Your task to perform on an android device: Open calendar and show me the third week of next month Image 0: 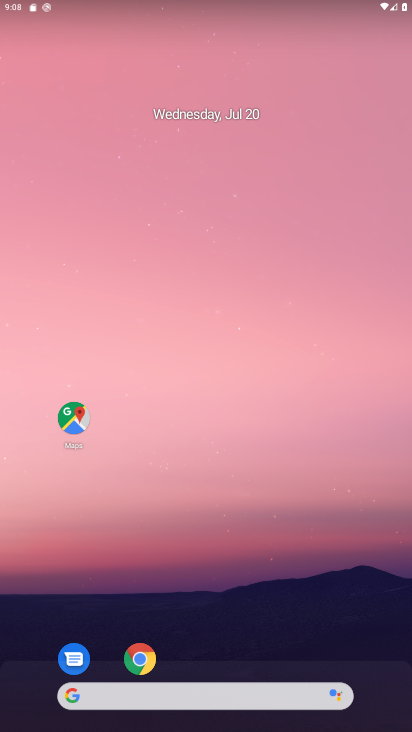
Step 0: drag from (266, 436) to (288, 100)
Your task to perform on an android device: Open calendar and show me the third week of next month Image 1: 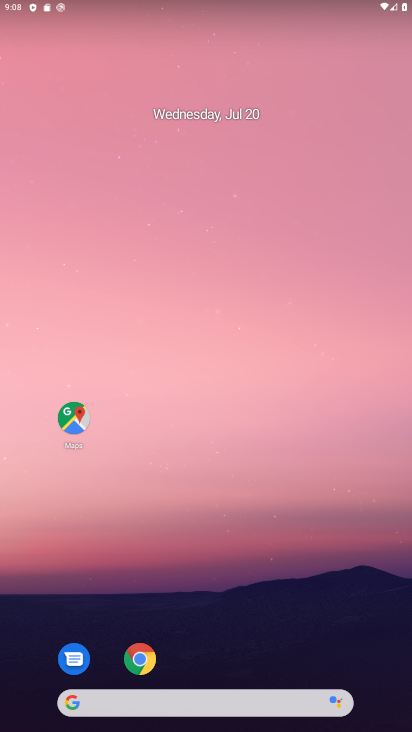
Step 1: drag from (265, 646) to (217, 89)
Your task to perform on an android device: Open calendar and show me the third week of next month Image 2: 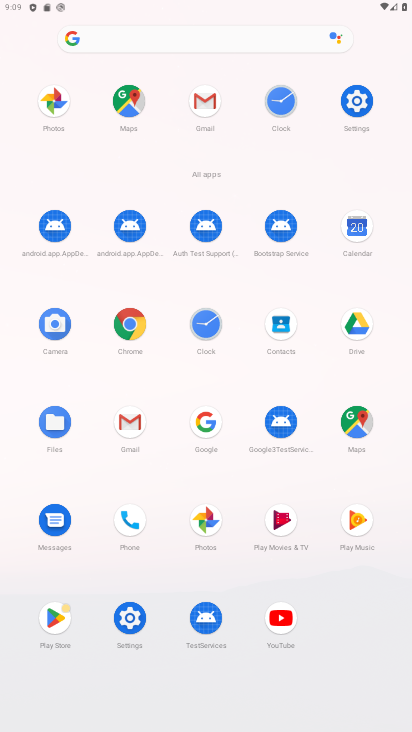
Step 2: click (359, 232)
Your task to perform on an android device: Open calendar and show me the third week of next month Image 3: 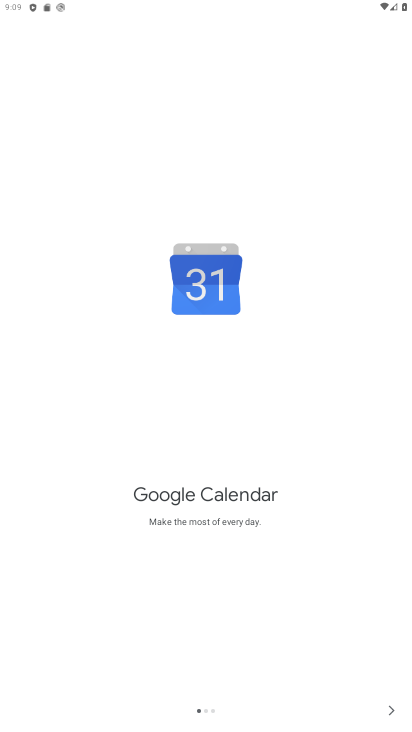
Step 3: click (391, 709)
Your task to perform on an android device: Open calendar and show me the third week of next month Image 4: 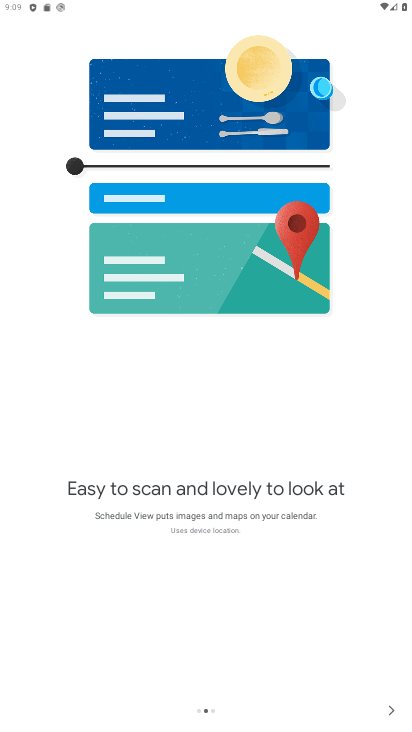
Step 4: click (391, 709)
Your task to perform on an android device: Open calendar and show me the third week of next month Image 5: 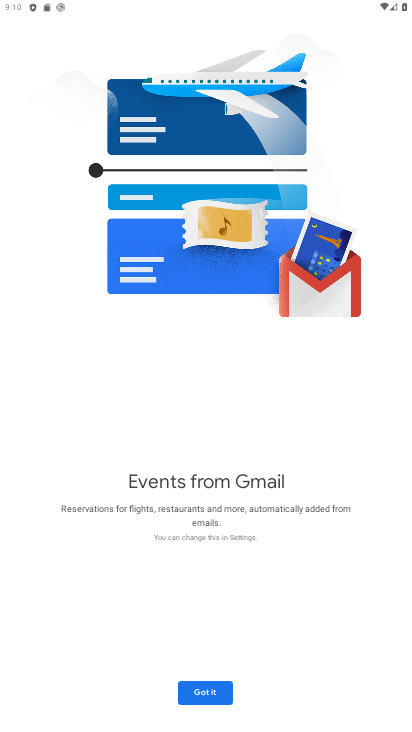
Step 5: click (191, 690)
Your task to perform on an android device: Open calendar and show me the third week of next month Image 6: 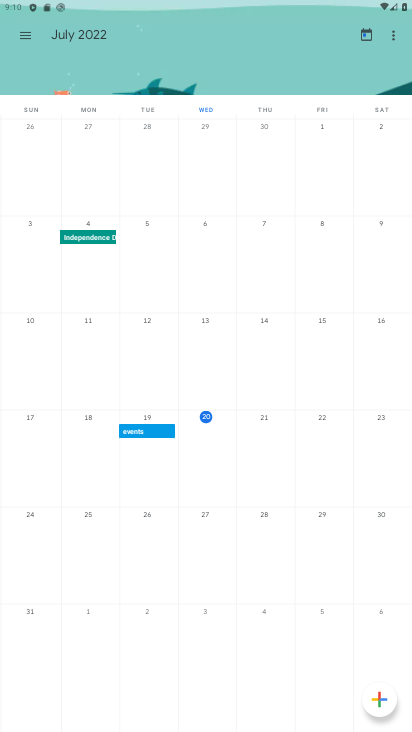
Step 6: drag from (364, 390) to (15, 206)
Your task to perform on an android device: Open calendar and show me the third week of next month Image 7: 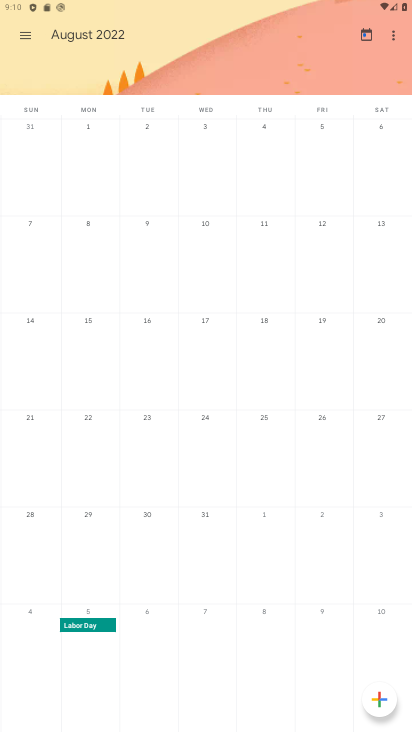
Step 7: click (137, 326)
Your task to perform on an android device: Open calendar and show me the third week of next month Image 8: 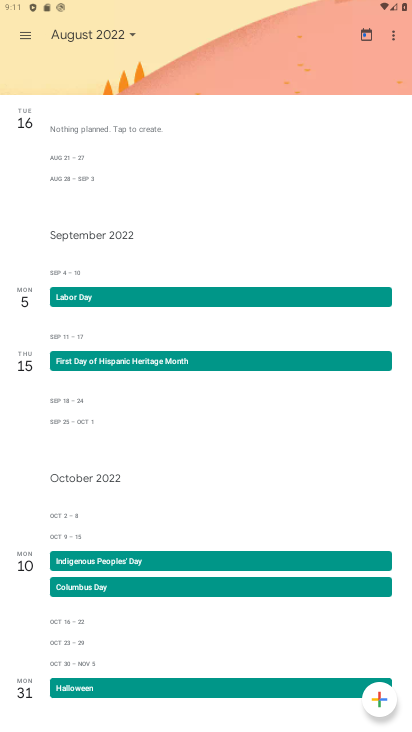
Step 8: click (14, 31)
Your task to perform on an android device: Open calendar and show me the third week of next month Image 9: 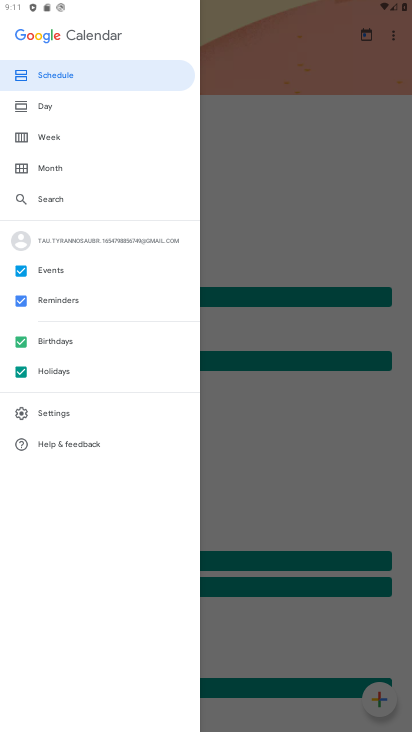
Step 9: click (57, 132)
Your task to perform on an android device: Open calendar and show me the third week of next month Image 10: 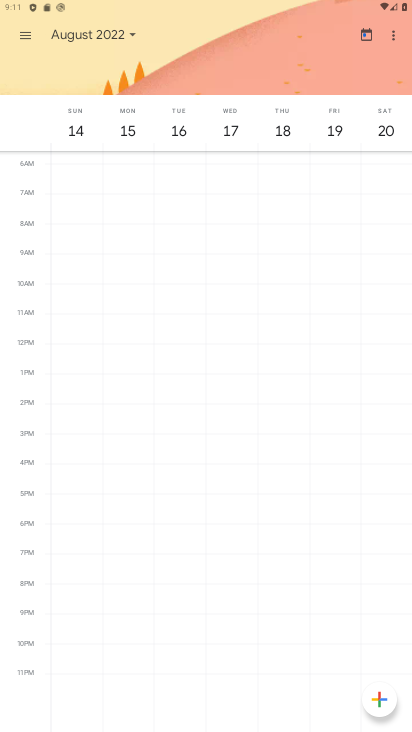
Step 10: task complete